Your task to perform on an android device: turn off smart reply in the gmail app Image 0: 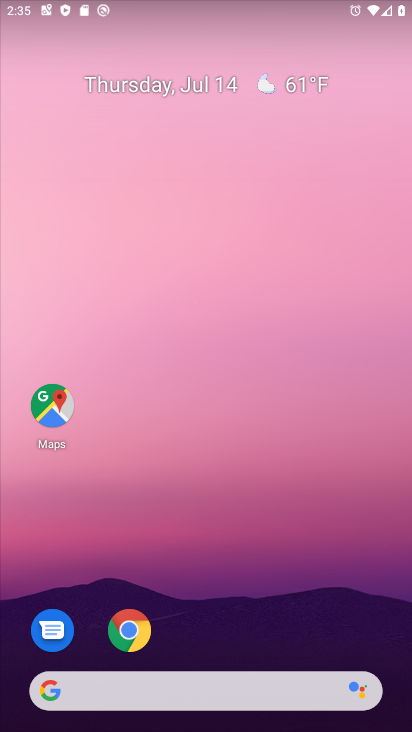
Step 0: press home button
Your task to perform on an android device: turn off smart reply in the gmail app Image 1: 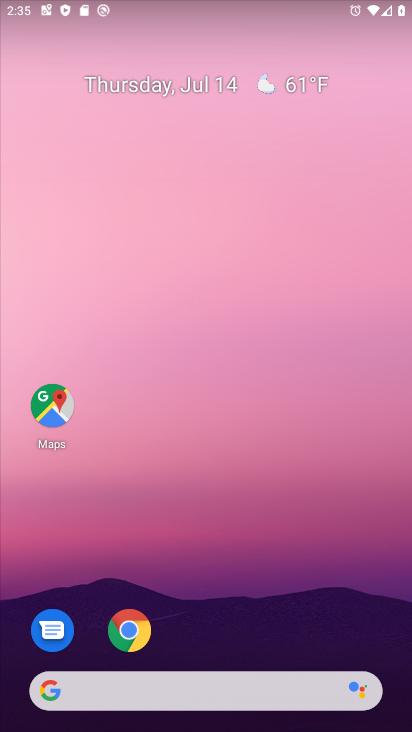
Step 1: drag from (226, 677) to (334, 138)
Your task to perform on an android device: turn off smart reply in the gmail app Image 2: 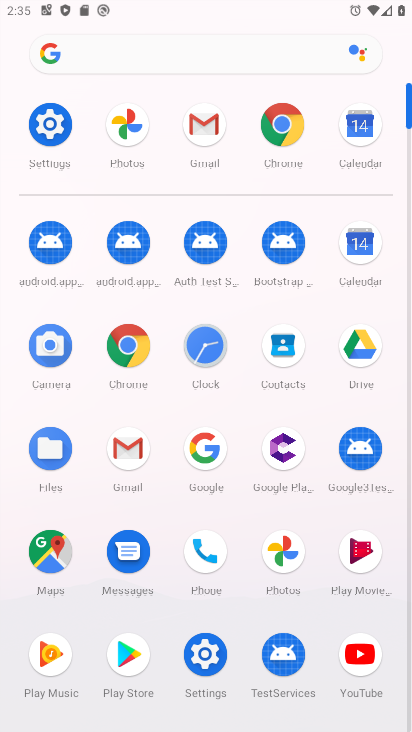
Step 2: click (202, 126)
Your task to perform on an android device: turn off smart reply in the gmail app Image 3: 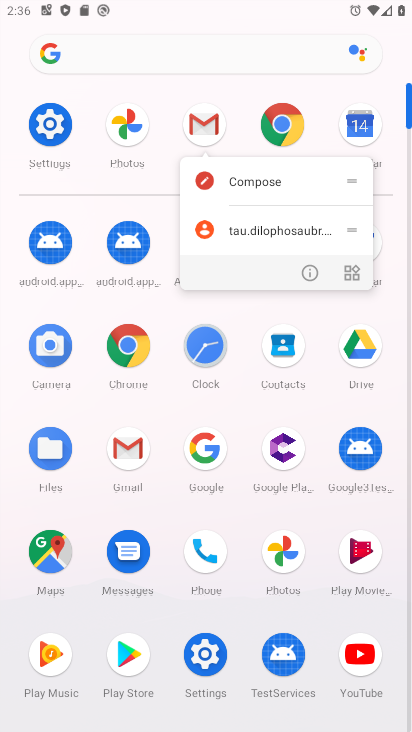
Step 3: click (201, 127)
Your task to perform on an android device: turn off smart reply in the gmail app Image 4: 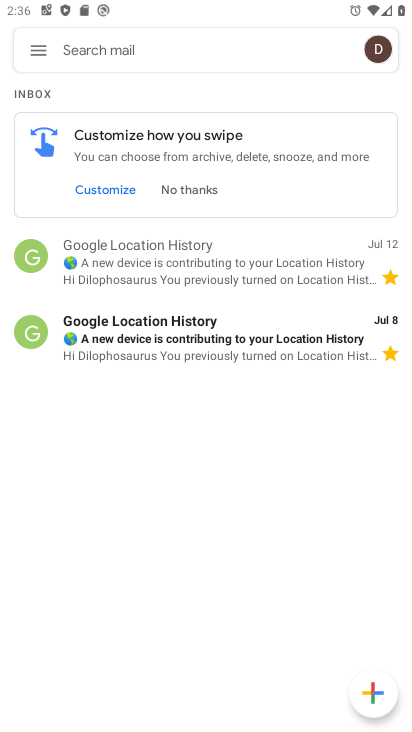
Step 4: click (38, 52)
Your task to perform on an android device: turn off smart reply in the gmail app Image 5: 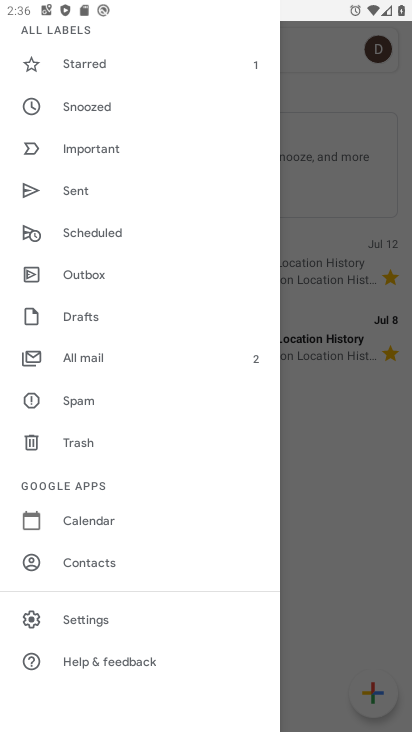
Step 5: click (123, 618)
Your task to perform on an android device: turn off smart reply in the gmail app Image 6: 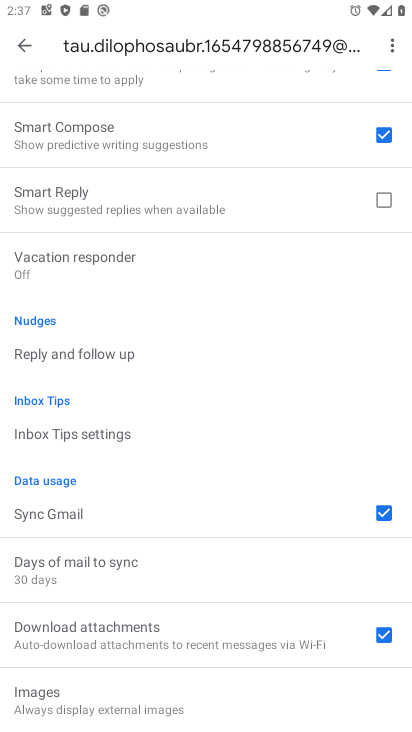
Step 6: task complete